Your task to perform on an android device: Go to network settings Image 0: 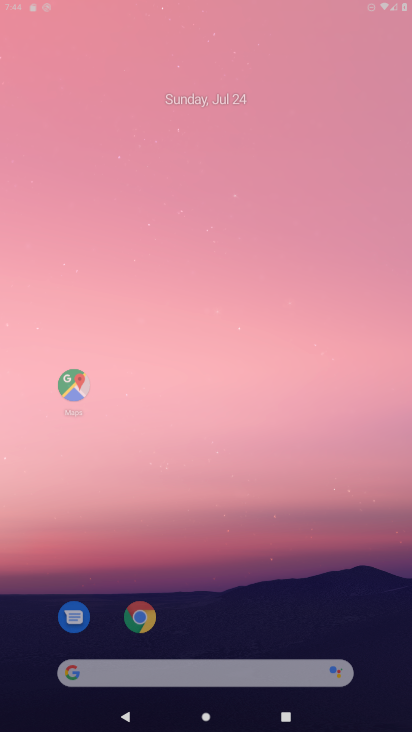
Step 0: drag from (311, 594) to (146, 56)
Your task to perform on an android device: Go to network settings Image 1: 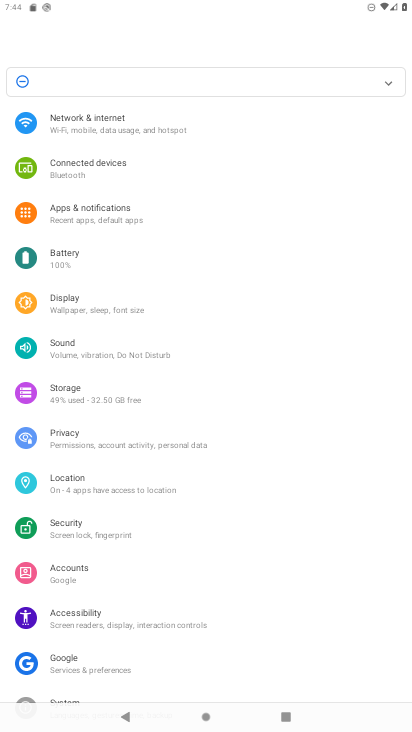
Step 1: press home button
Your task to perform on an android device: Go to network settings Image 2: 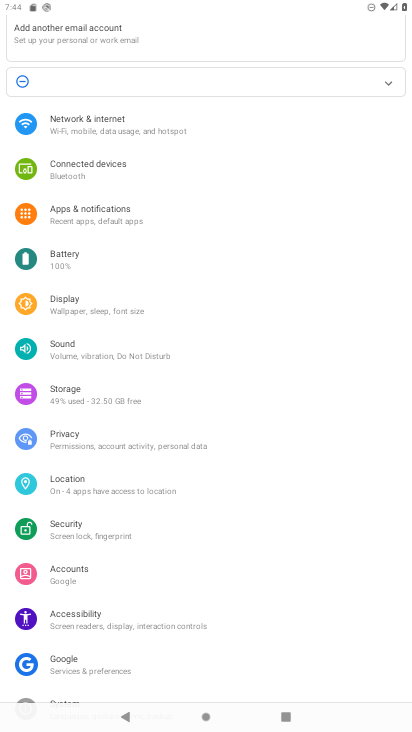
Step 2: drag from (356, 687) to (206, 62)
Your task to perform on an android device: Go to network settings Image 3: 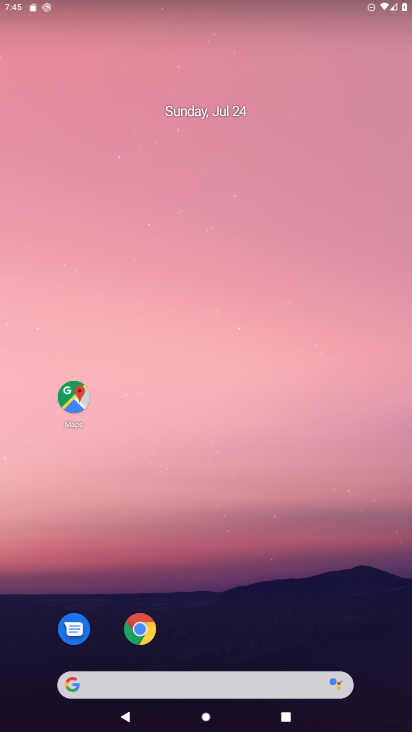
Step 3: drag from (317, 603) to (116, 26)
Your task to perform on an android device: Go to network settings Image 4: 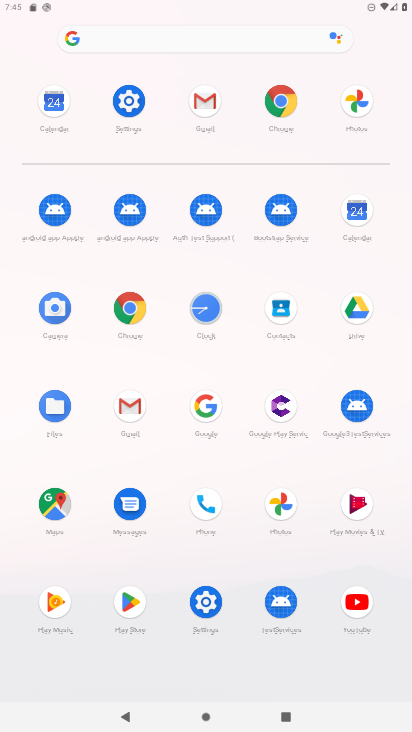
Step 4: click (127, 117)
Your task to perform on an android device: Go to network settings Image 5: 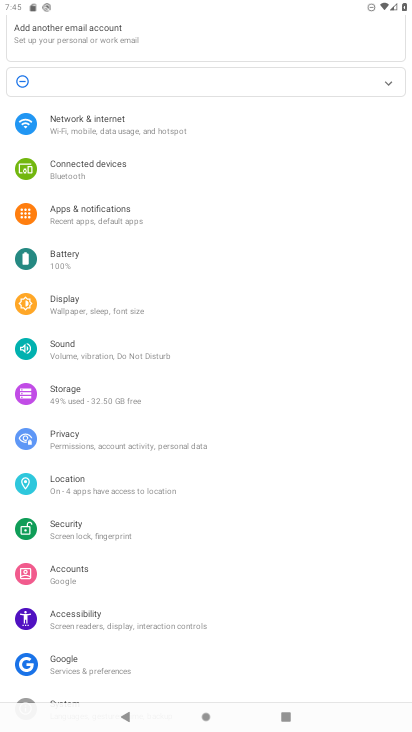
Step 5: click (125, 129)
Your task to perform on an android device: Go to network settings Image 6: 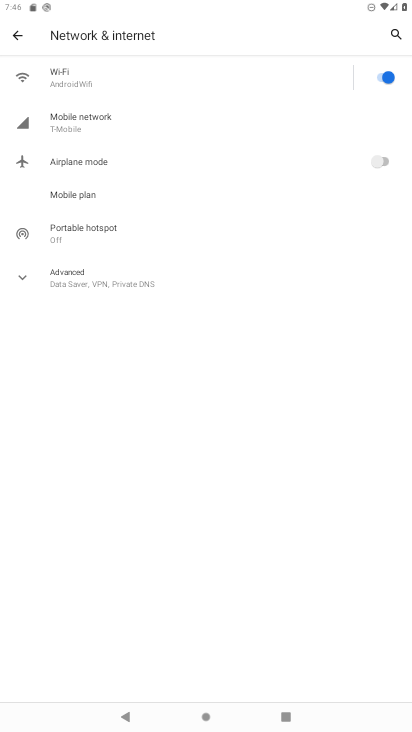
Step 6: task complete